Your task to perform on an android device: Open the Play Movies app and select the watchlist tab. Image 0: 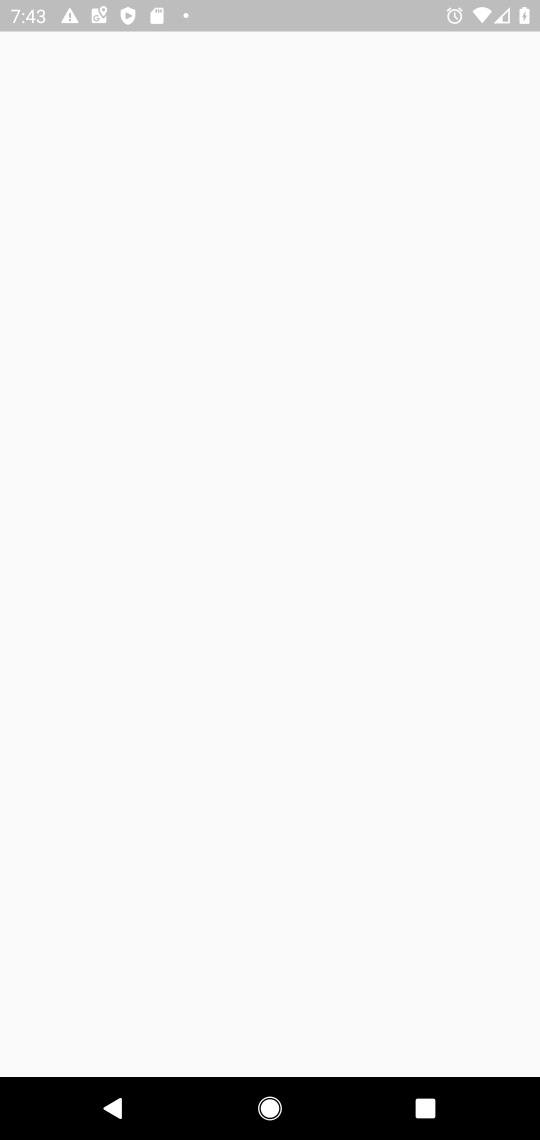
Step 0: press home button
Your task to perform on an android device: Open the Play Movies app and select the watchlist tab. Image 1: 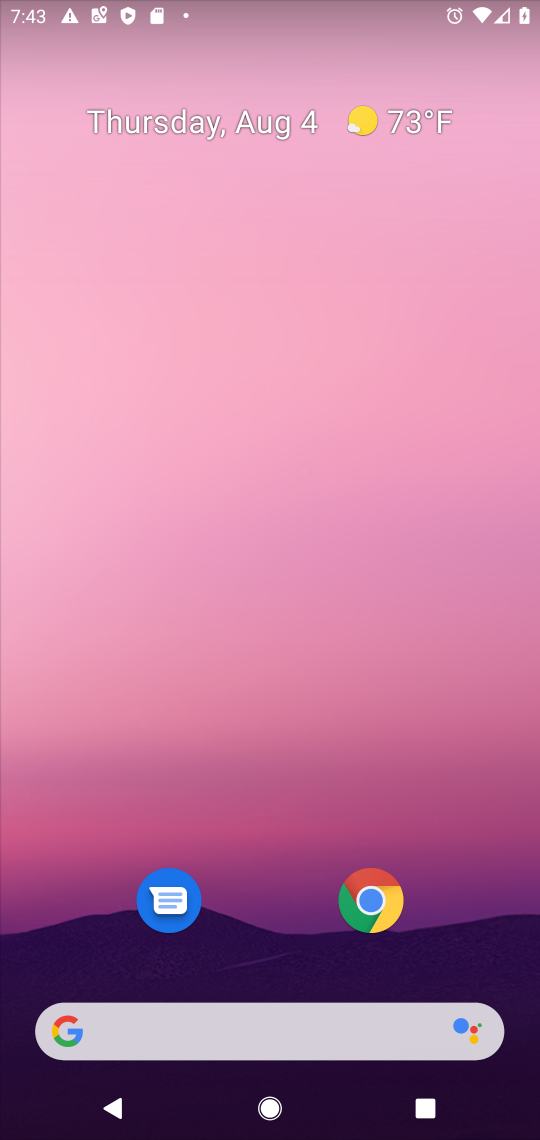
Step 1: drag from (223, 1036) to (165, 174)
Your task to perform on an android device: Open the Play Movies app and select the watchlist tab. Image 2: 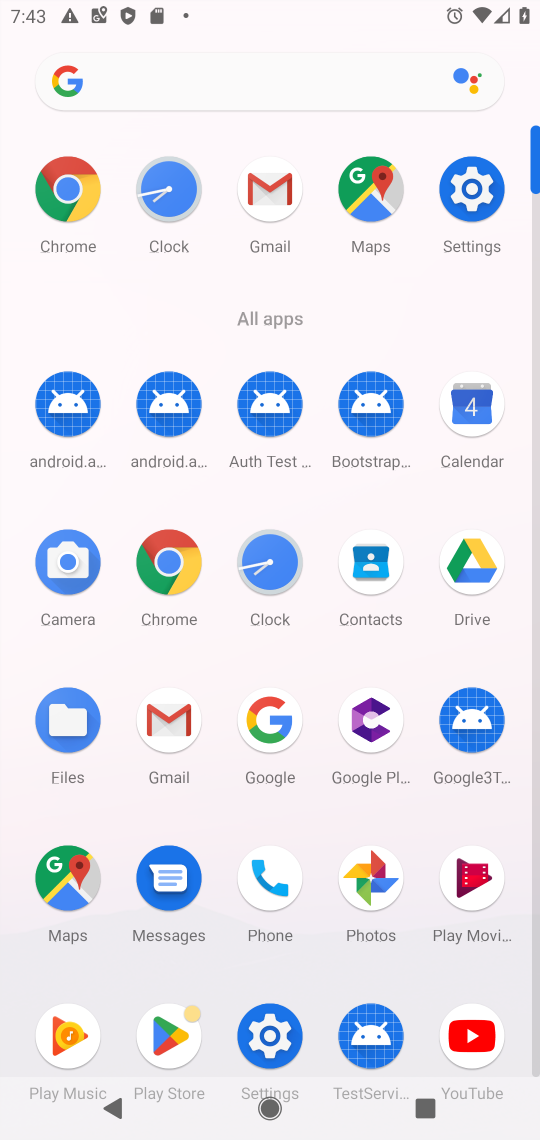
Step 2: click (472, 881)
Your task to perform on an android device: Open the Play Movies app and select the watchlist tab. Image 3: 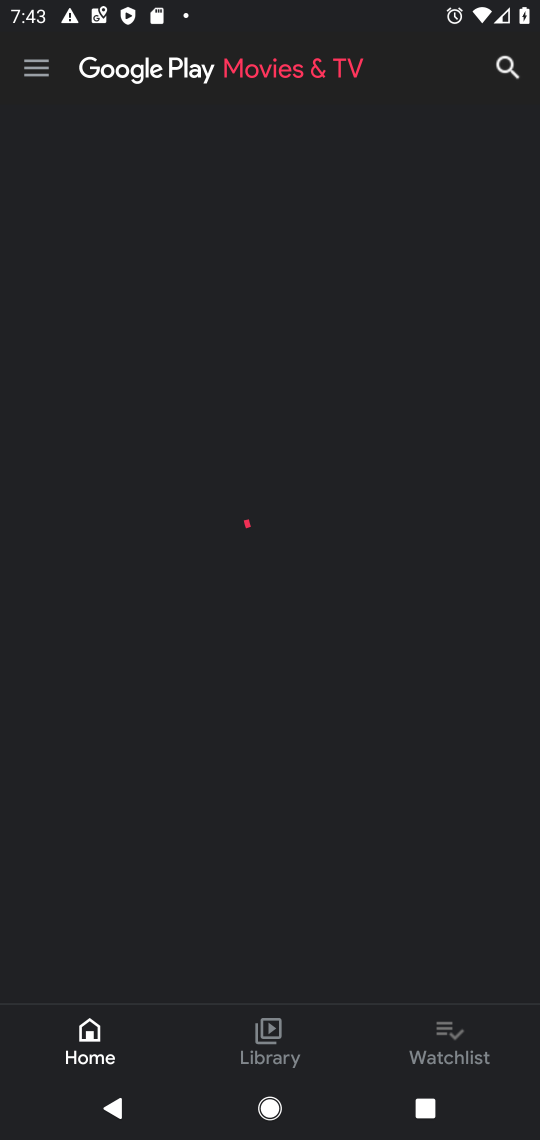
Step 3: click (455, 1031)
Your task to perform on an android device: Open the Play Movies app and select the watchlist tab. Image 4: 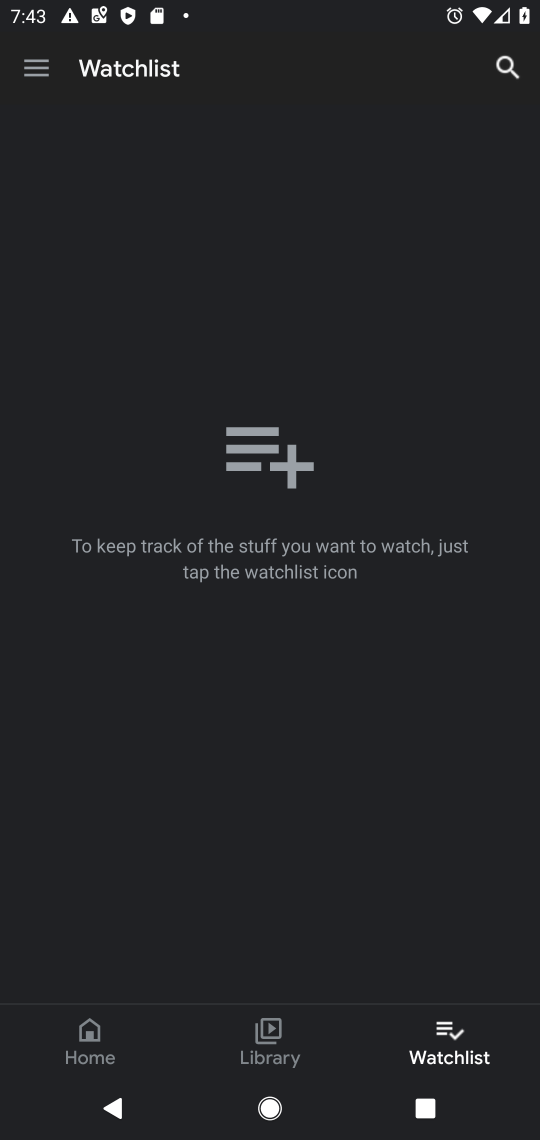
Step 4: task complete